Your task to perform on an android device: search for starred emails in the gmail app Image 0: 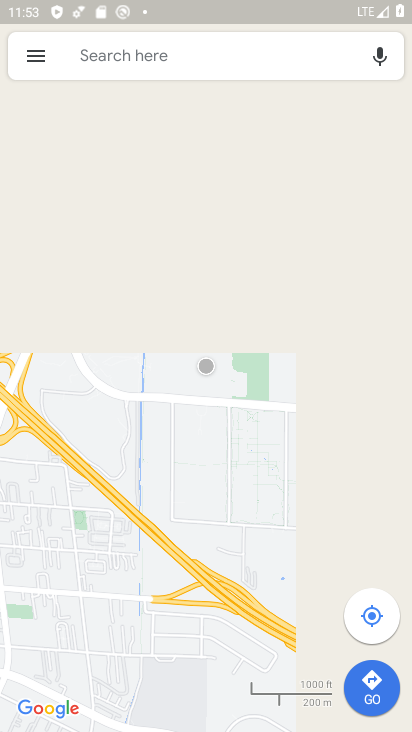
Step 0: press home button
Your task to perform on an android device: search for starred emails in the gmail app Image 1: 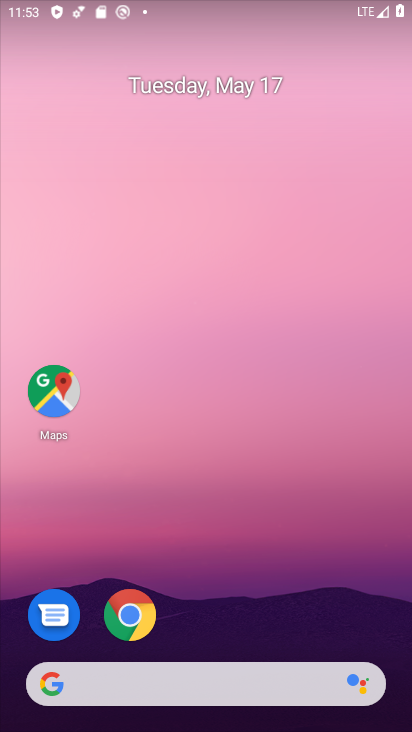
Step 1: drag from (248, 700) to (207, 159)
Your task to perform on an android device: search for starred emails in the gmail app Image 2: 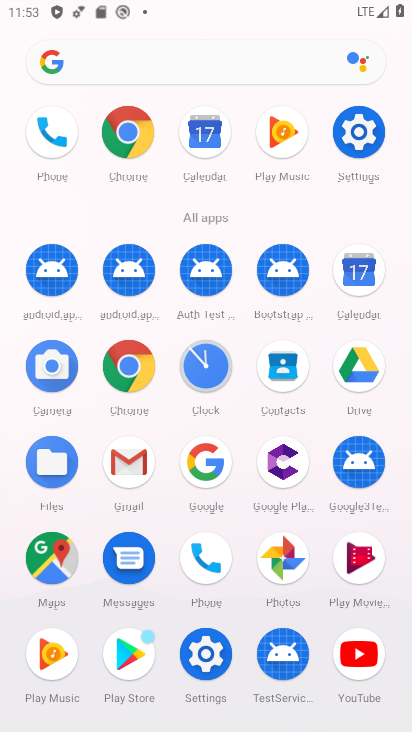
Step 2: click (118, 463)
Your task to perform on an android device: search for starred emails in the gmail app Image 3: 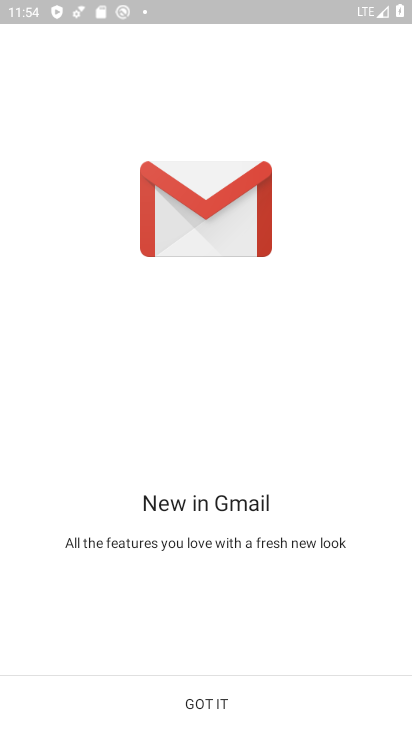
Step 3: click (210, 700)
Your task to perform on an android device: search for starred emails in the gmail app Image 4: 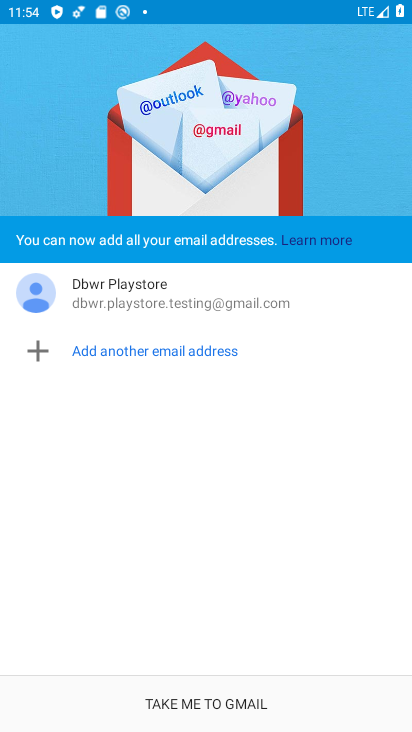
Step 4: click (178, 687)
Your task to perform on an android device: search for starred emails in the gmail app Image 5: 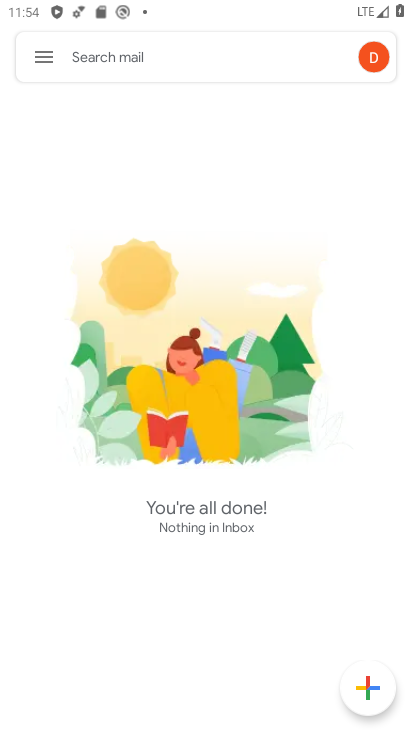
Step 5: click (41, 60)
Your task to perform on an android device: search for starred emails in the gmail app Image 6: 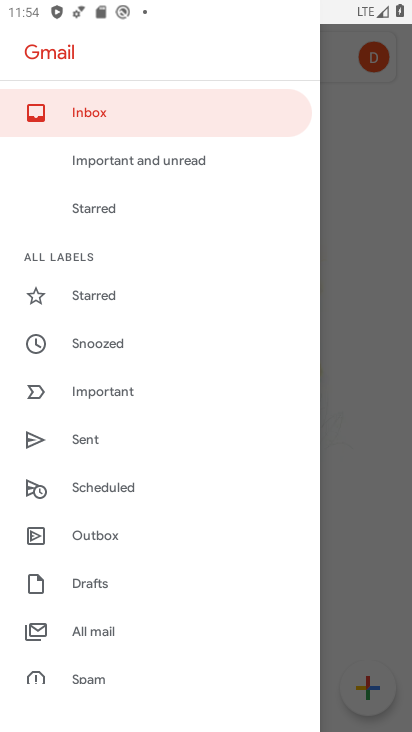
Step 6: drag from (132, 578) to (127, 539)
Your task to perform on an android device: search for starred emails in the gmail app Image 7: 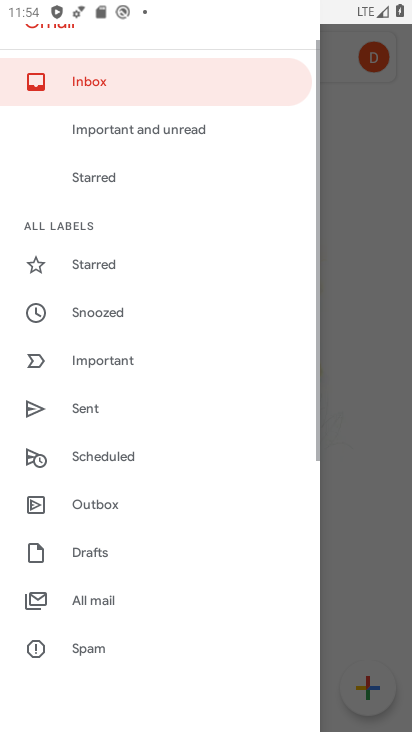
Step 7: click (107, 258)
Your task to perform on an android device: search for starred emails in the gmail app Image 8: 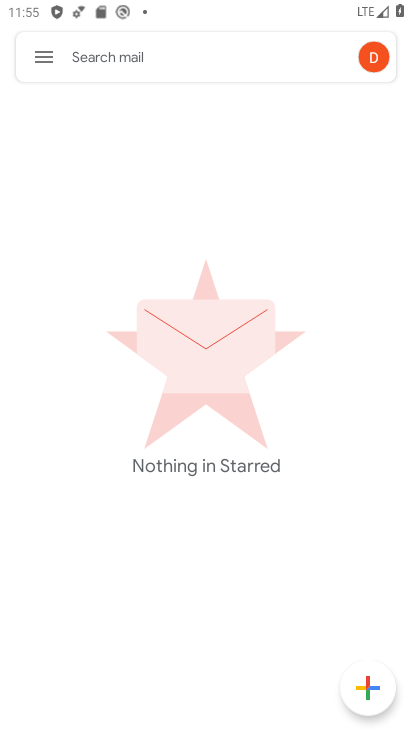
Step 8: task complete